Your task to perform on an android device: Check the weather Image 0: 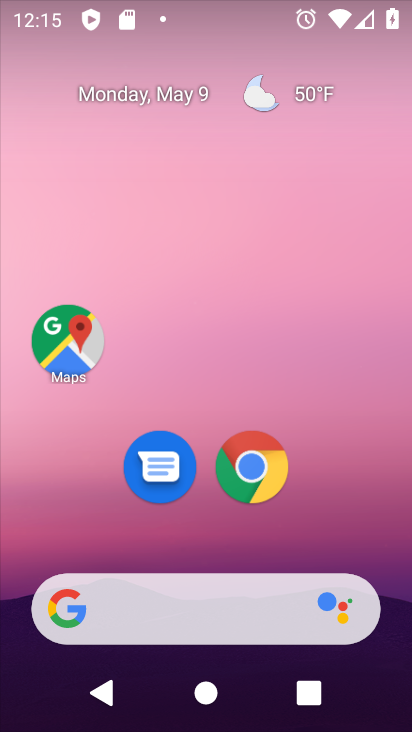
Step 0: drag from (201, 545) to (258, 6)
Your task to perform on an android device: Check the weather Image 1: 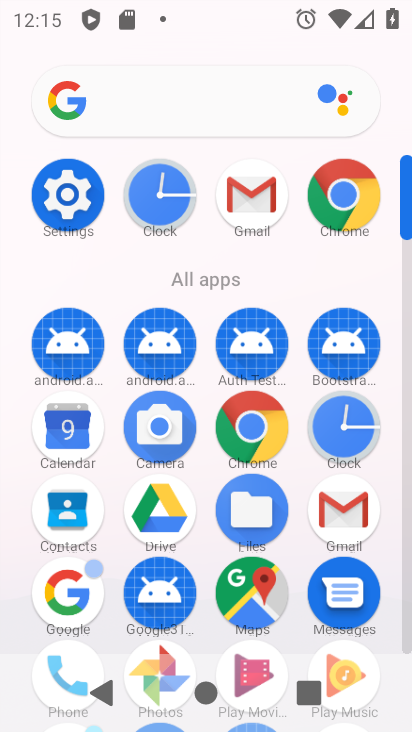
Step 1: press back button
Your task to perform on an android device: Check the weather Image 2: 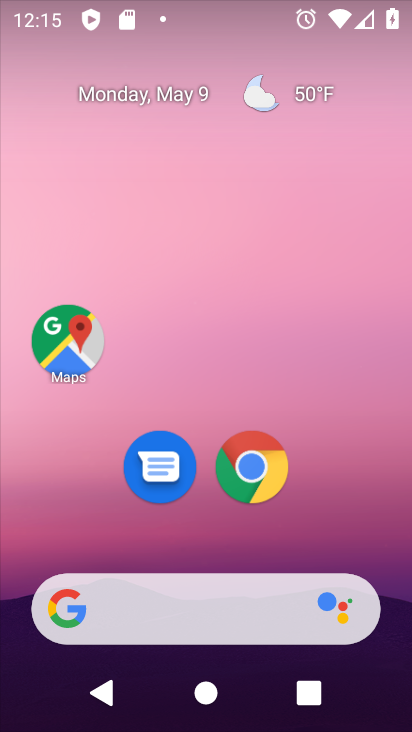
Step 2: click (306, 89)
Your task to perform on an android device: Check the weather Image 3: 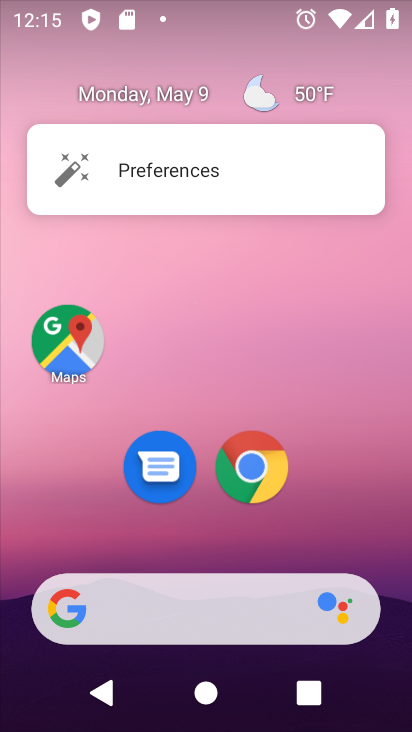
Step 3: click (318, 91)
Your task to perform on an android device: Check the weather Image 4: 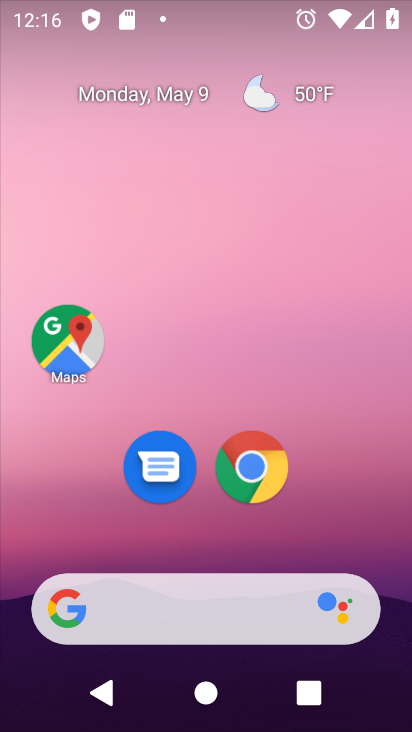
Step 4: click (263, 92)
Your task to perform on an android device: Check the weather Image 5: 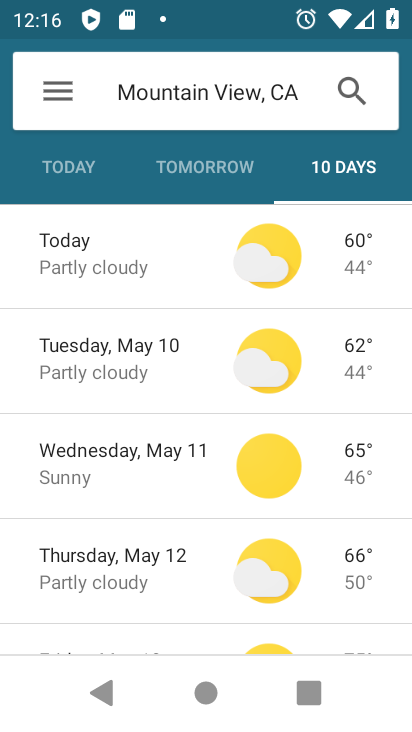
Step 5: drag from (243, 541) to (247, 596)
Your task to perform on an android device: Check the weather Image 6: 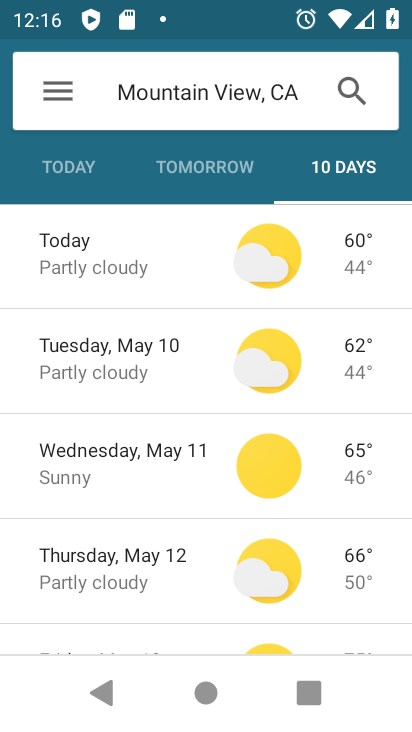
Step 6: click (74, 180)
Your task to perform on an android device: Check the weather Image 7: 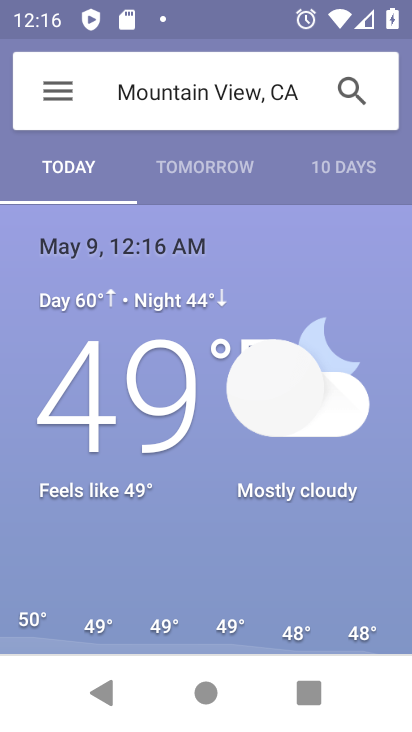
Step 7: task complete